Your task to perform on an android device: change your default location settings in chrome Image 0: 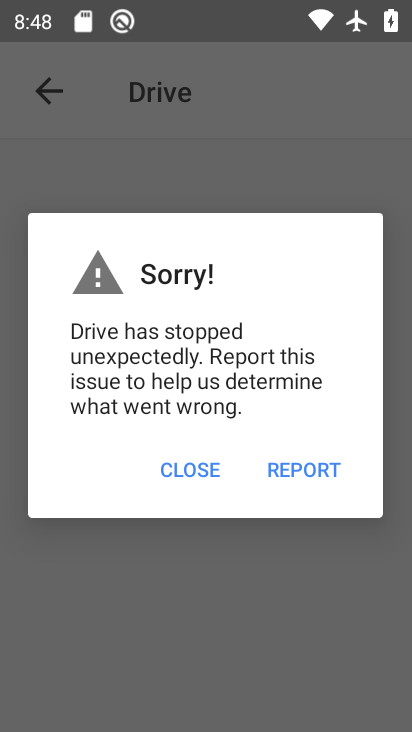
Step 0: drag from (167, 364) to (248, 78)
Your task to perform on an android device: change your default location settings in chrome Image 1: 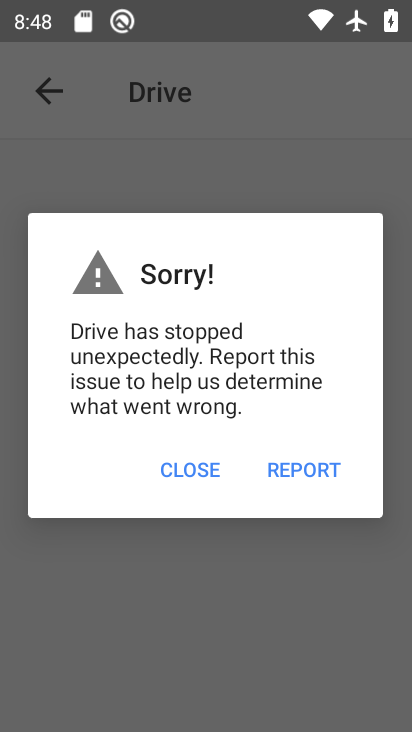
Step 1: press home button
Your task to perform on an android device: change your default location settings in chrome Image 2: 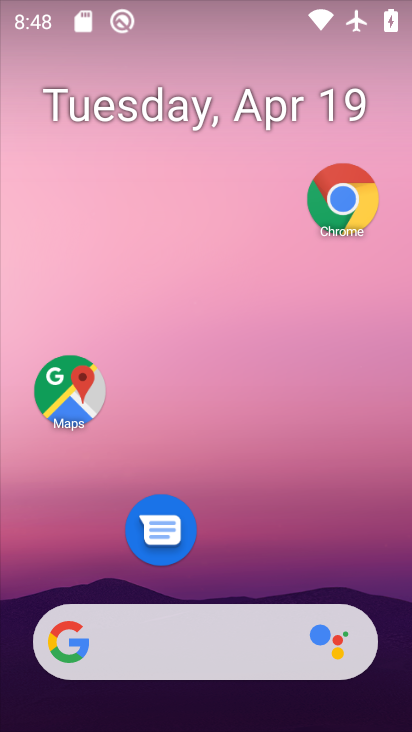
Step 2: drag from (222, 547) to (263, 6)
Your task to perform on an android device: change your default location settings in chrome Image 3: 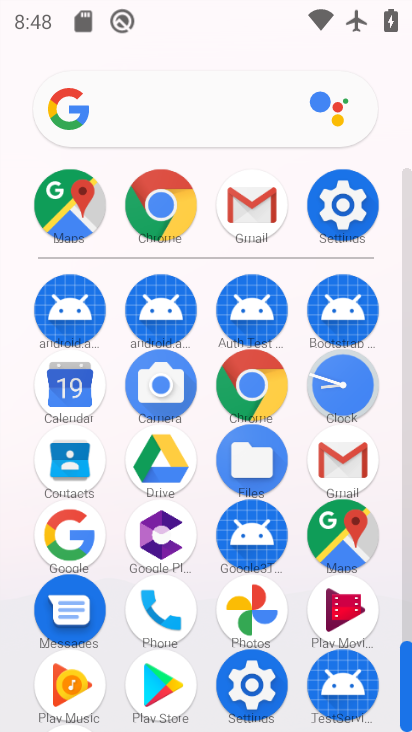
Step 3: drag from (202, 671) to (225, 284)
Your task to perform on an android device: change your default location settings in chrome Image 4: 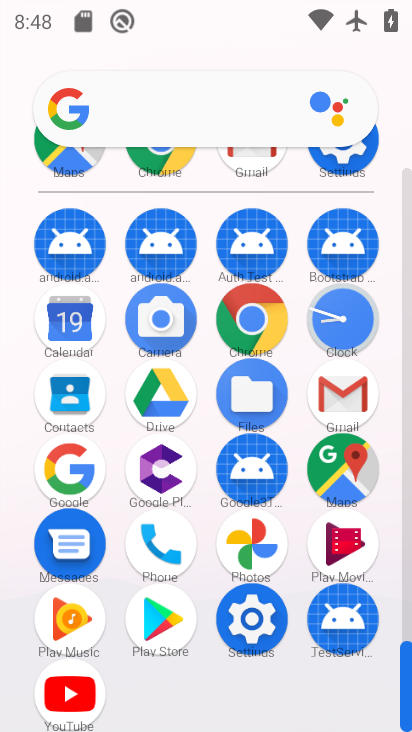
Step 4: click (252, 310)
Your task to perform on an android device: change your default location settings in chrome Image 5: 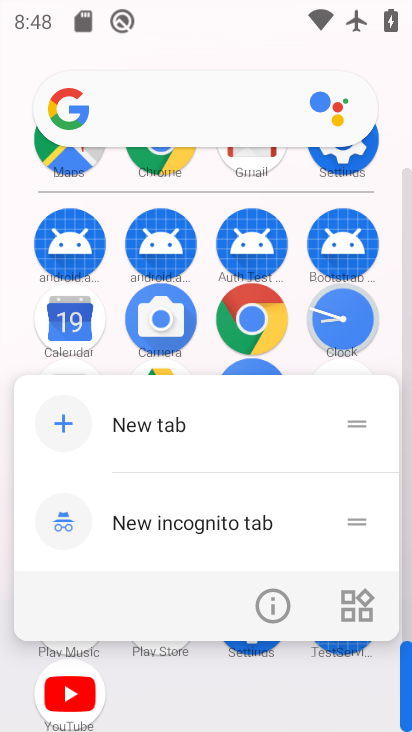
Step 5: click (268, 591)
Your task to perform on an android device: change your default location settings in chrome Image 6: 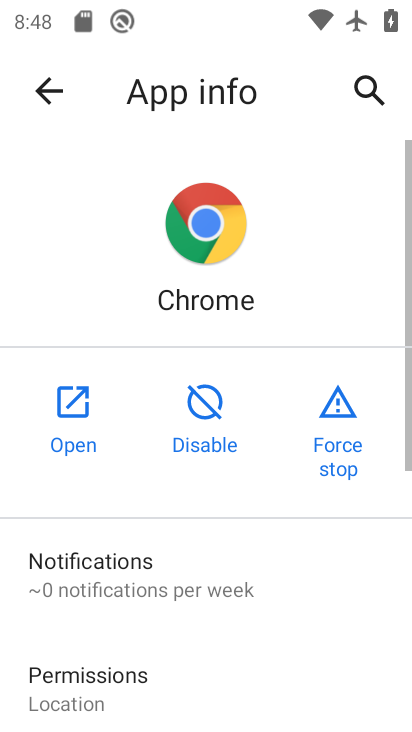
Step 6: click (98, 419)
Your task to perform on an android device: change your default location settings in chrome Image 7: 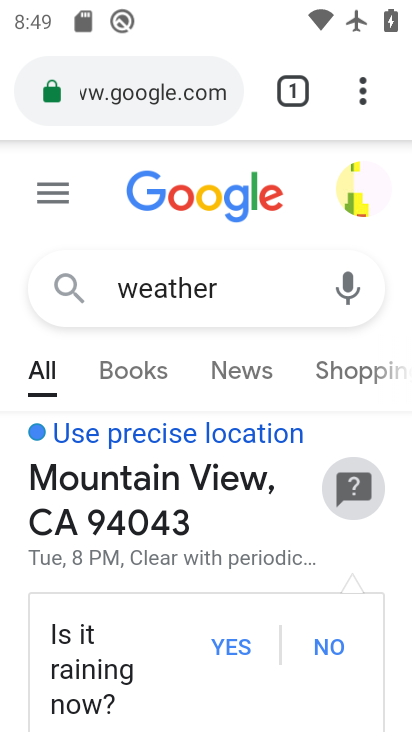
Step 7: drag from (368, 77) to (129, 563)
Your task to perform on an android device: change your default location settings in chrome Image 8: 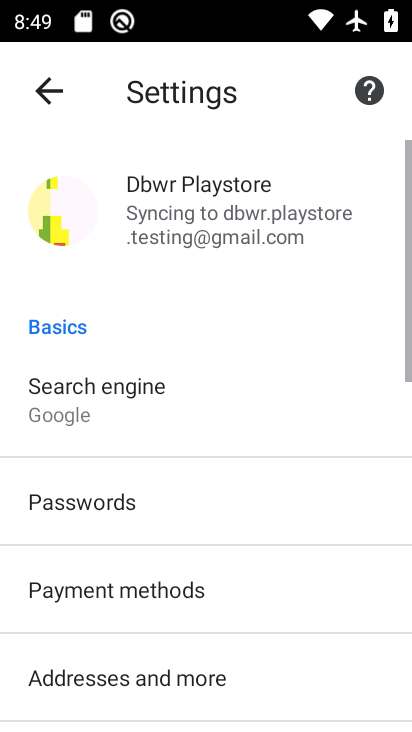
Step 8: drag from (183, 571) to (254, 246)
Your task to perform on an android device: change your default location settings in chrome Image 9: 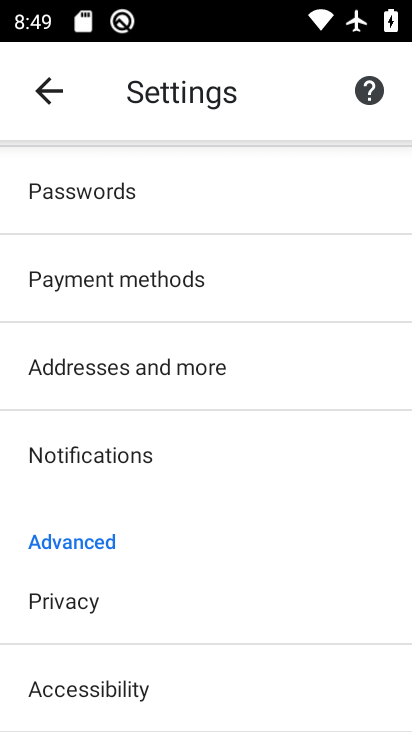
Step 9: drag from (129, 653) to (271, 176)
Your task to perform on an android device: change your default location settings in chrome Image 10: 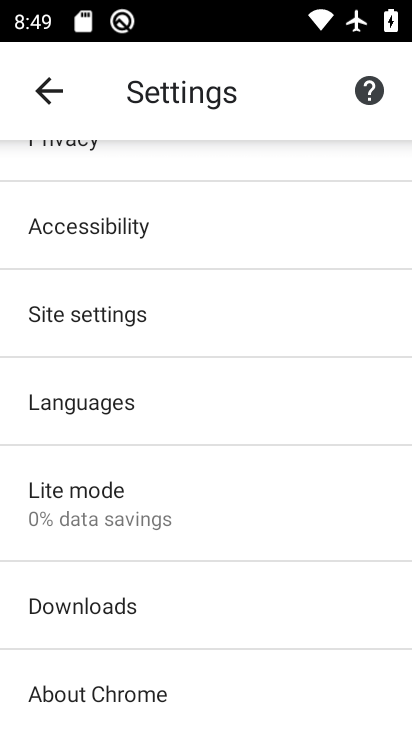
Step 10: click (97, 312)
Your task to perform on an android device: change your default location settings in chrome Image 11: 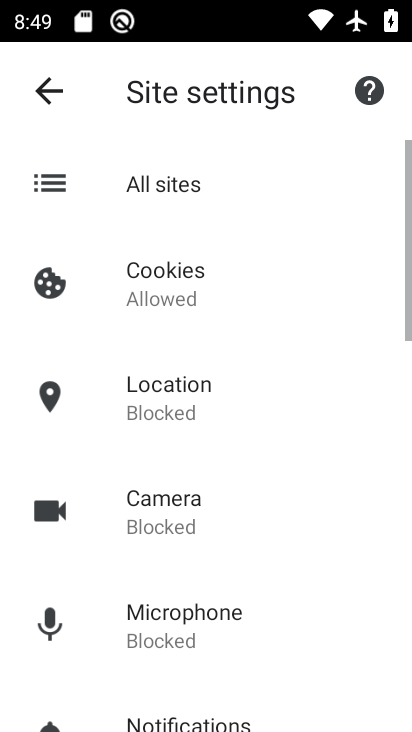
Step 11: click (184, 407)
Your task to perform on an android device: change your default location settings in chrome Image 12: 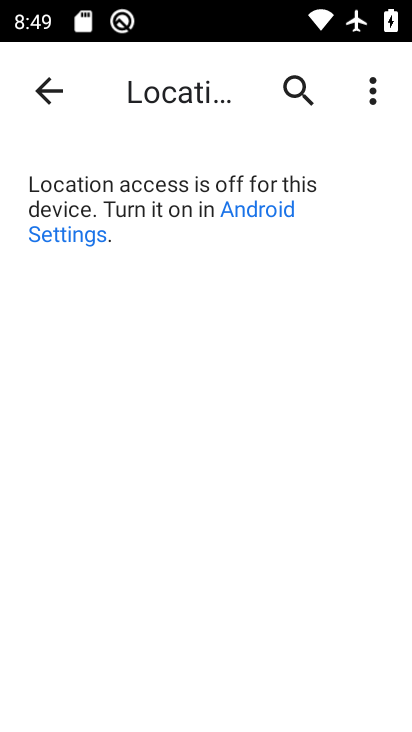
Step 12: task complete